Your task to perform on an android device: toggle data saver in the chrome app Image 0: 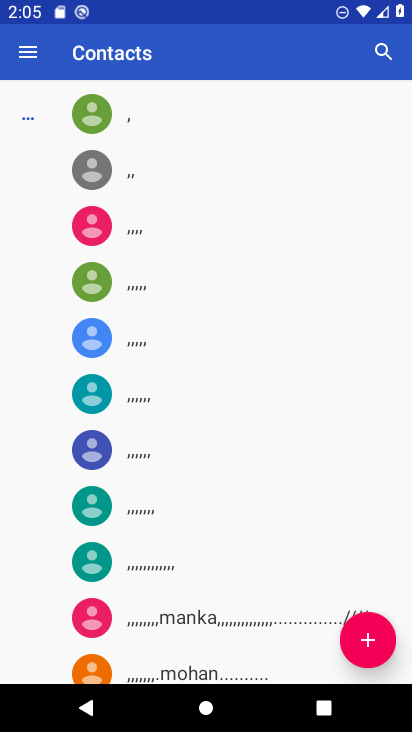
Step 0: press home button
Your task to perform on an android device: toggle data saver in the chrome app Image 1: 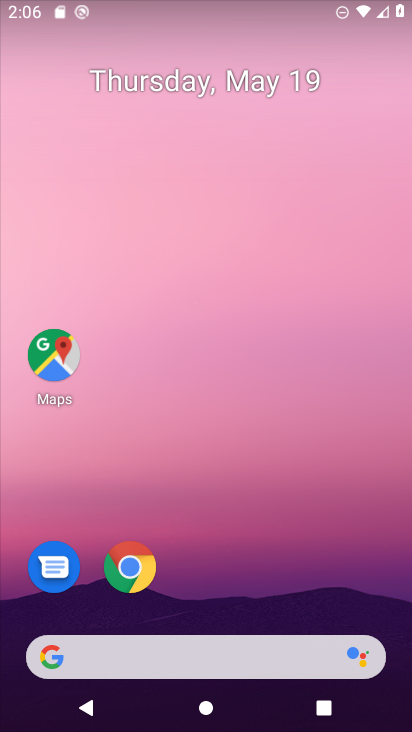
Step 1: click (136, 565)
Your task to perform on an android device: toggle data saver in the chrome app Image 2: 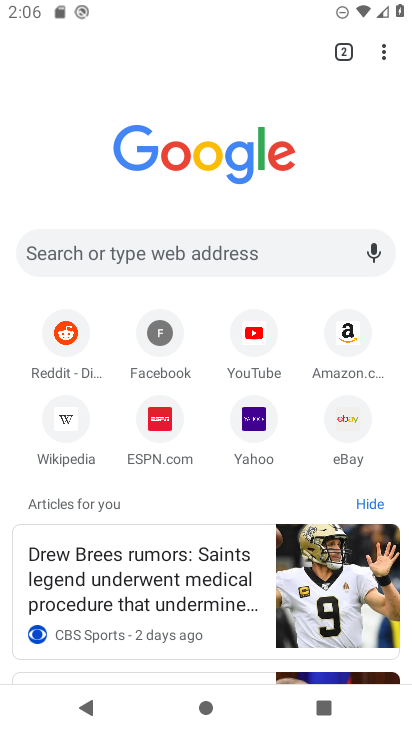
Step 2: click (382, 52)
Your task to perform on an android device: toggle data saver in the chrome app Image 3: 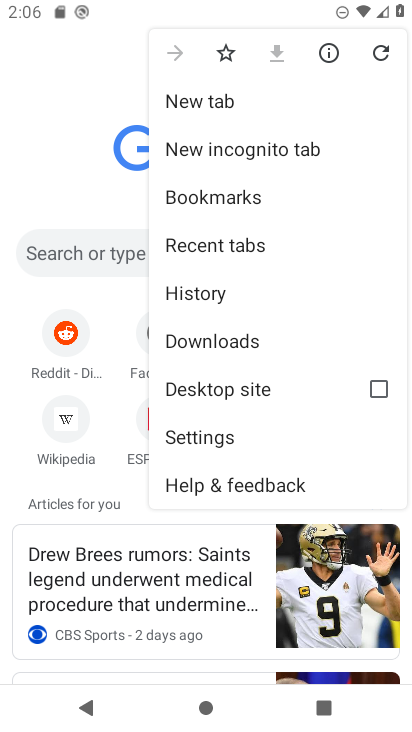
Step 3: click (219, 427)
Your task to perform on an android device: toggle data saver in the chrome app Image 4: 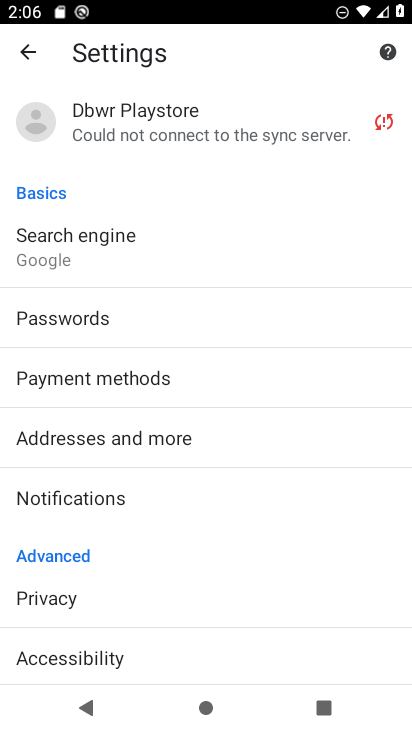
Step 4: drag from (213, 557) to (255, 261)
Your task to perform on an android device: toggle data saver in the chrome app Image 5: 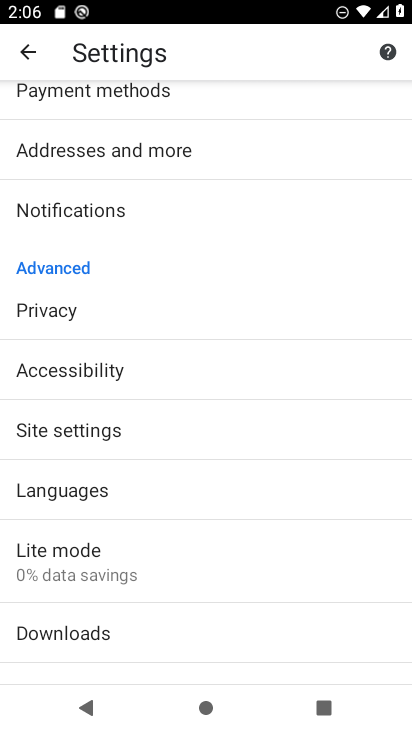
Step 5: click (133, 431)
Your task to perform on an android device: toggle data saver in the chrome app Image 6: 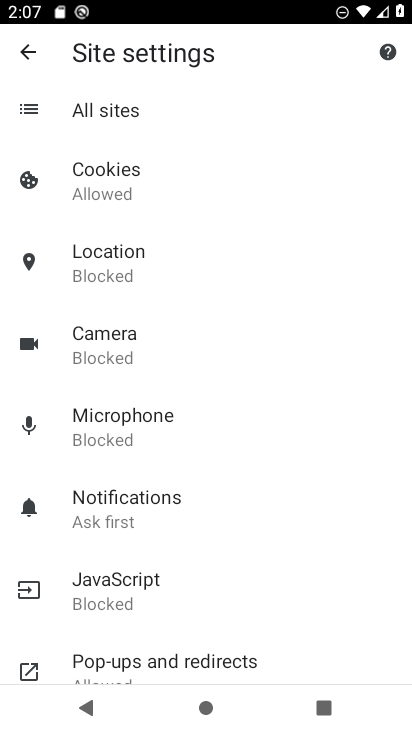
Step 6: click (28, 45)
Your task to perform on an android device: toggle data saver in the chrome app Image 7: 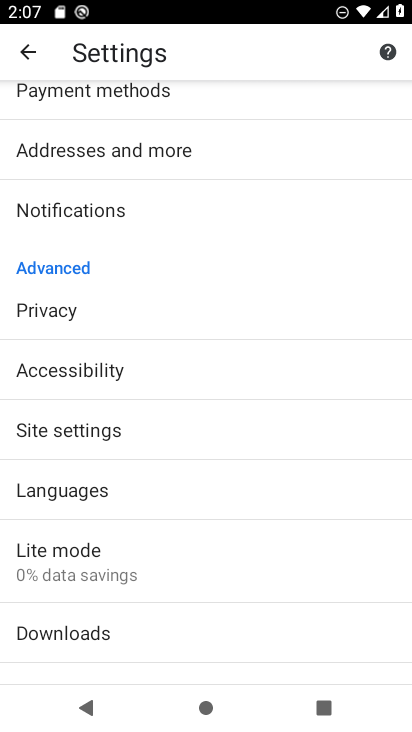
Step 7: click (189, 560)
Your task to perform on an android device: toggle data saver in the chrome app Image 8: 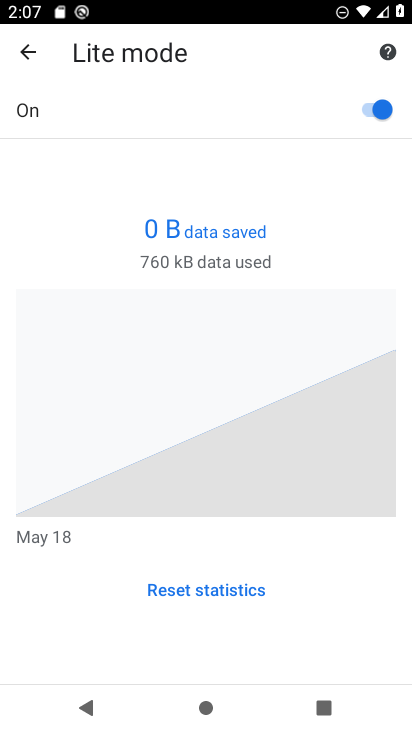
Step 8: click (362, 109)
Your task to perform on an android device: toggle data saver in the chrome app Image 9: 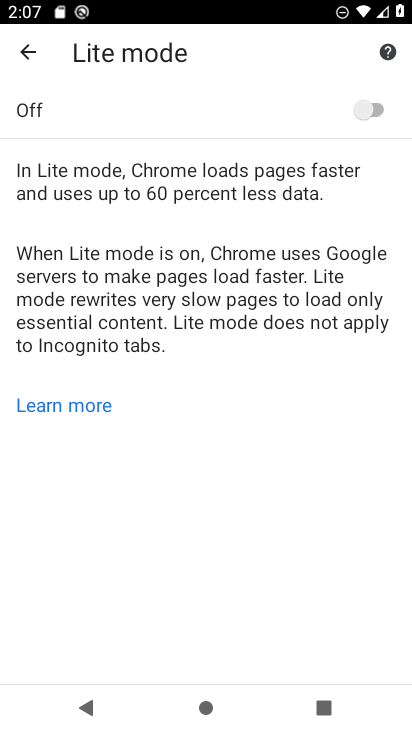
Step 9: task complete